Your task to perform on an android device: change timer sound Image 0: 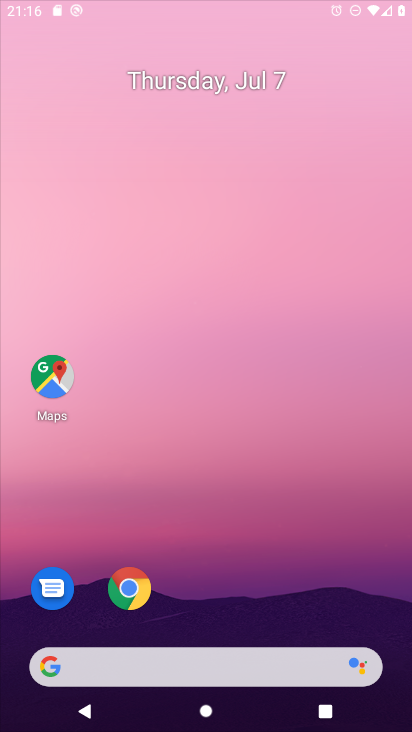
Step 0: drag from (305, 582) to (302, 282)
Your task to perform on an android device: change timer sound Image 1: 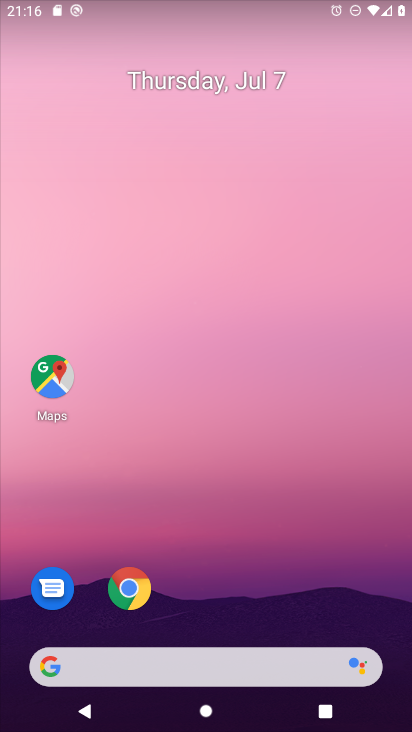
Step 1: drag from (239, 546) to (263, 152)
Your task to perform on an android device: change timer sound Image 2: 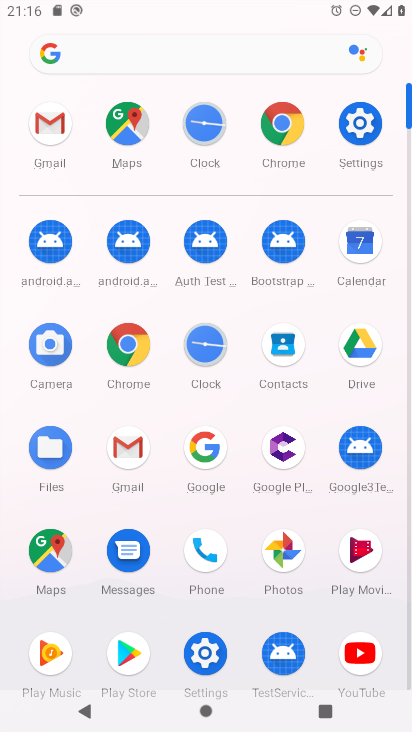
Step 2: click (199, 120)
Your task to perform on an android device: change timer sound Image 3: 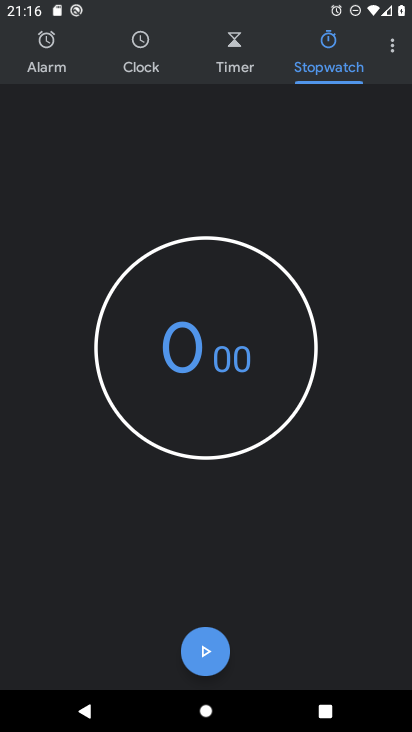
Step 3: click (392, 45)
Your task to perform on an android device: change timer sound Image 4: 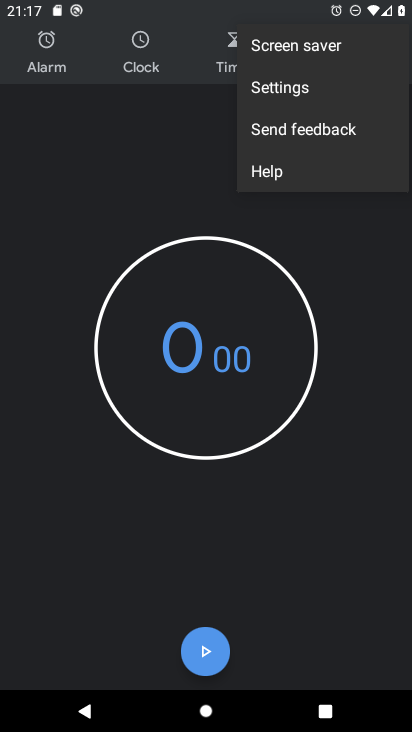
Step 4: click (277, 73)
Your task to perform on an android device: change timer sound Image 5: 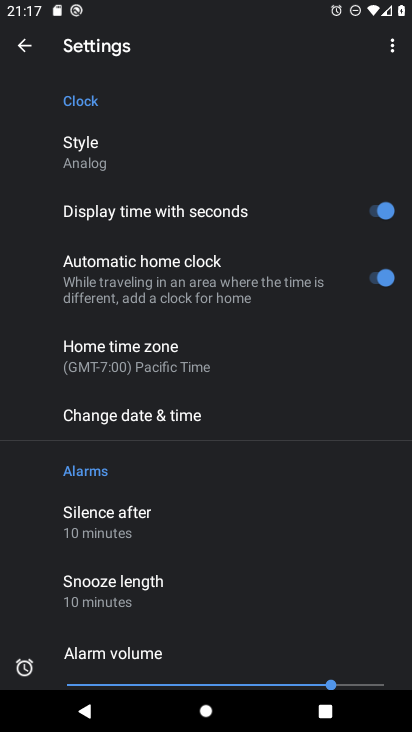
Step 5: drag from (150, 573) to (206, 202)
Your task to perform on an android device: change timer sound Image 6: 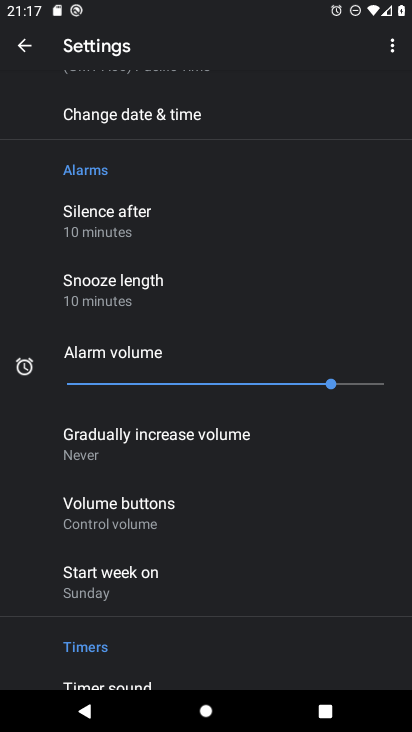
Step 6: drag from (149, 540) to (201, 208)
Your task to perform on an android device: change timer sound Image 7: 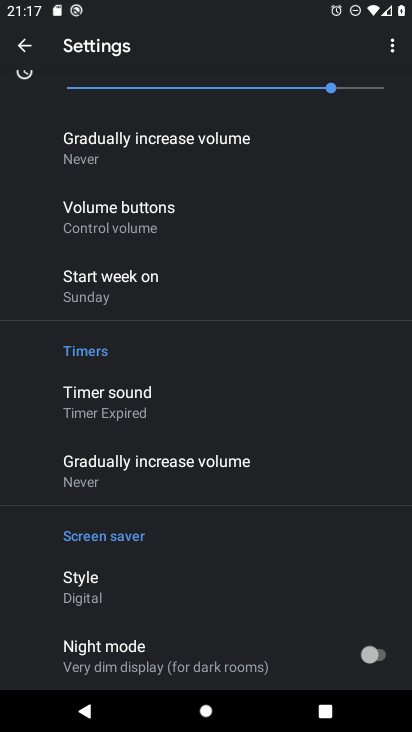
Step 7: click (139, 408)
Your task to perform on an android device: change timer sound Image 8: 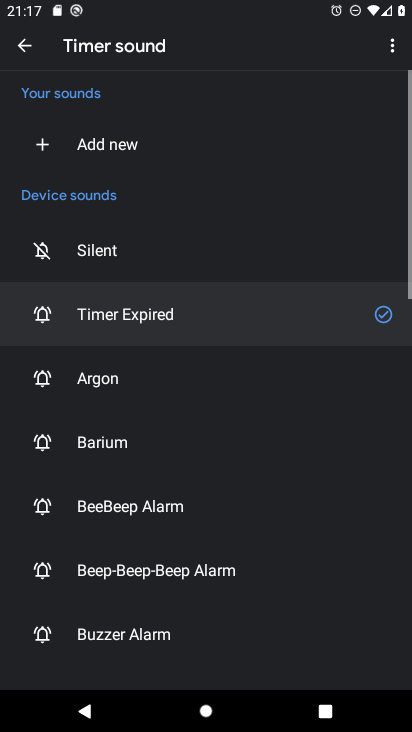
Step 8: click (151, 377)
Your task to perform on an android device: change timer sound Image 9: 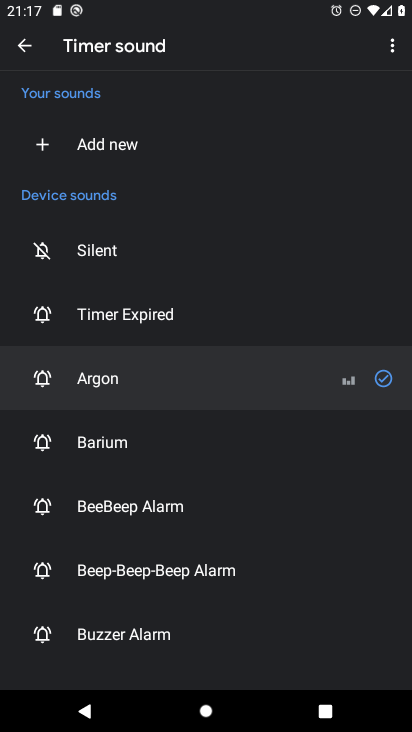
Step 9: task complete